Your task to perform on an android device: Open calendar and show me the first week of next month Image 0: 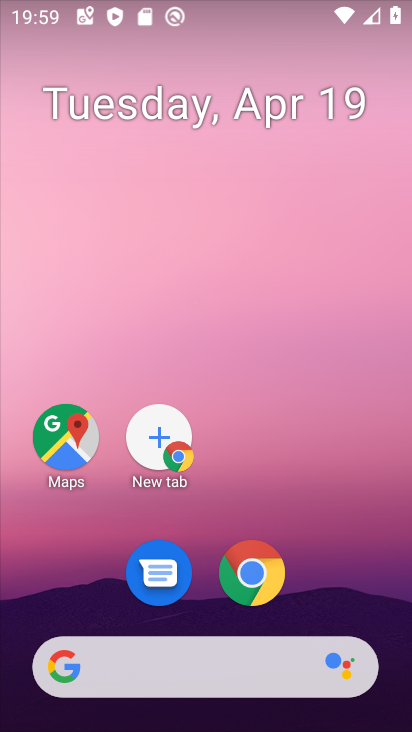
Step 0: click (339, 109)
Your task to perform on an android device: Open calendar and show me the first week of next month Image 1: 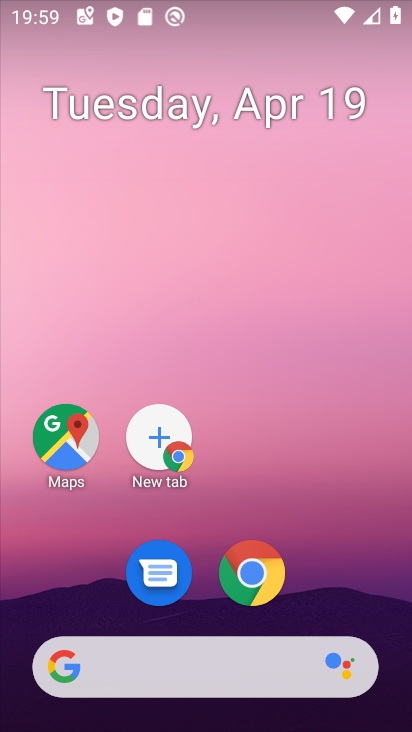
Step 1: drag from (354, 149) to (326, 40)
Your task to perform on an android device: Open calendar and show me the first week of next month Image 2: 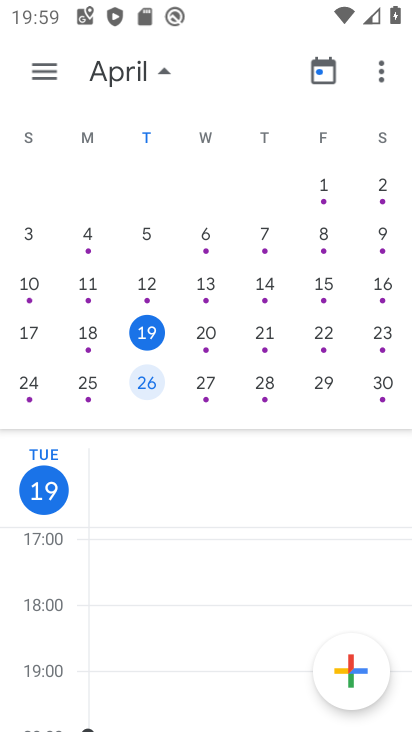
Step 2: press home button
Your task to perform on an android device: Open calendar and show me the first week of next month Image 3: 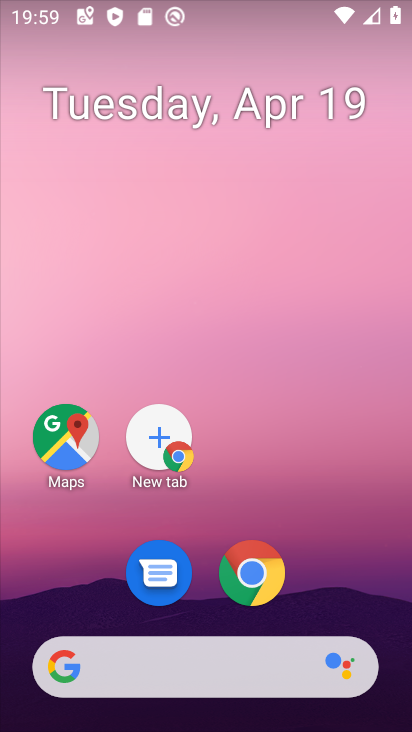
Step 3: drag from (341, 341) to (334, 256)
Your task to perform on an android device: Open calendar and show me the first week of next month Image 4: 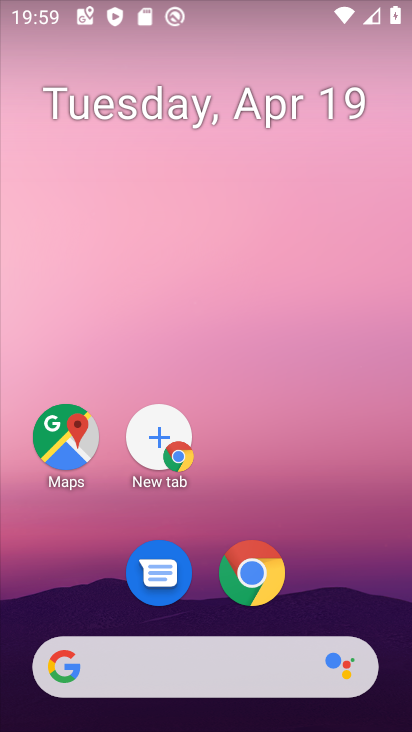
Step 4: drag from (345, 328) to (332, 169)
Your task to perform on an android device: Open calendar and show me the first week of next month Image 5: 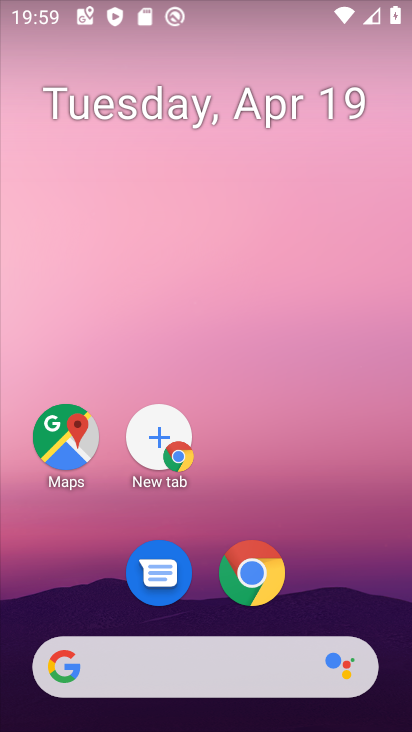
Step 5: drag from (388, 401) to (372, 120)
Your task to perform on an android device: Open calendar and show me the first week of next month Image 6: 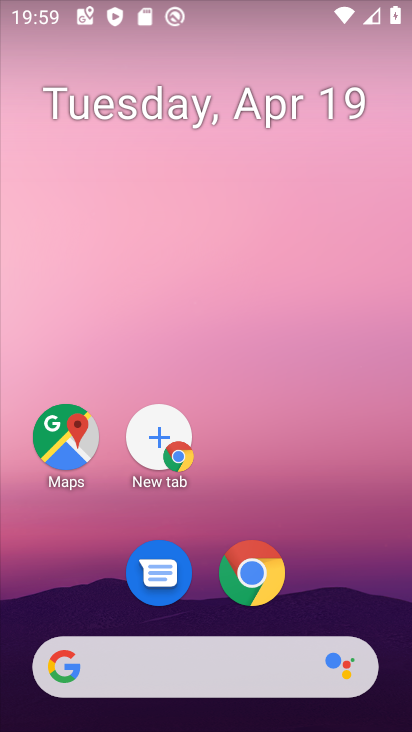
Step 6: drag from (406, 571) to (349, 194)
Your task to perform on an android device: Open calendar and show me the first week of next month Image 7: 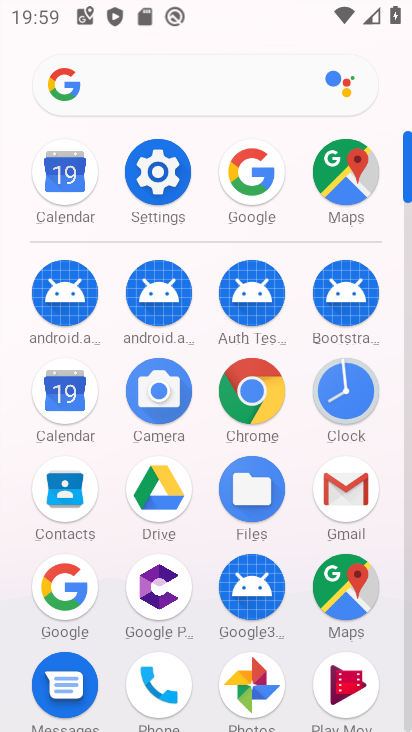
Step 7: click (64, 177)
Your task to perform on an android device: Open calendar and show me the first week of next month Image 8: 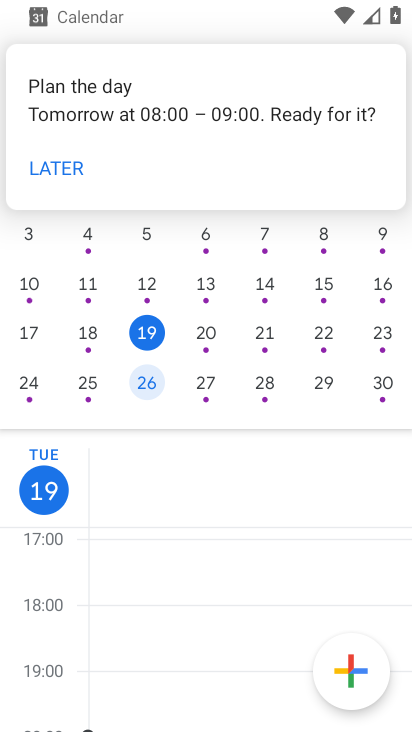
Step 8: drag from (395, 268) to (17, 240)
Your task to perform on an android device: Open calendar and show me the first week of next month Image 9: 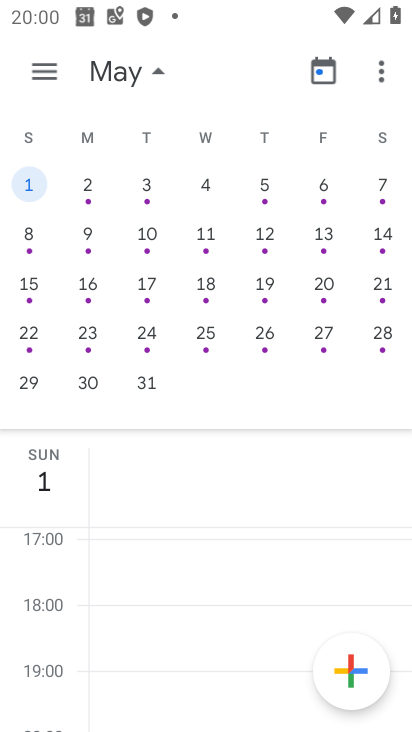
Step 9: click (205, 186)
Your task to perform on an android device: Open calendar and show me the first week of next month Image 10: 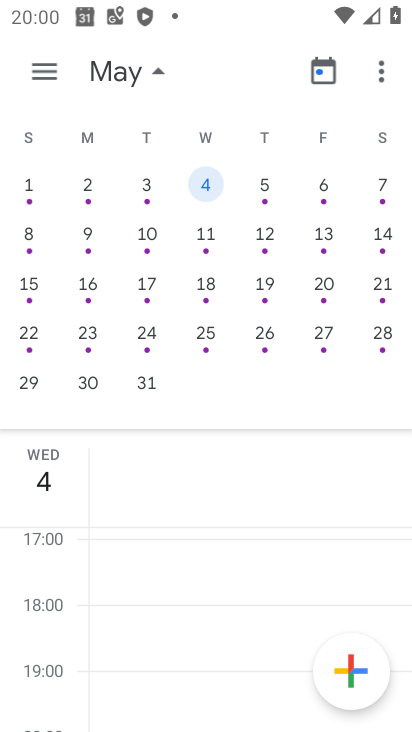
Step 10: click (53, 69)
Your task to perform on an android device: Open calendar and show me the first week of next month Image 11: 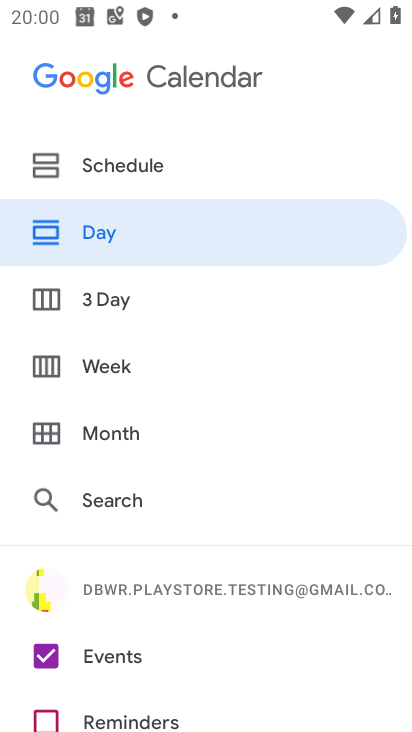
Step 11: click (83, 357)
Your task to perform on an android device: Open calendar and show me the first week of next month Image 12: 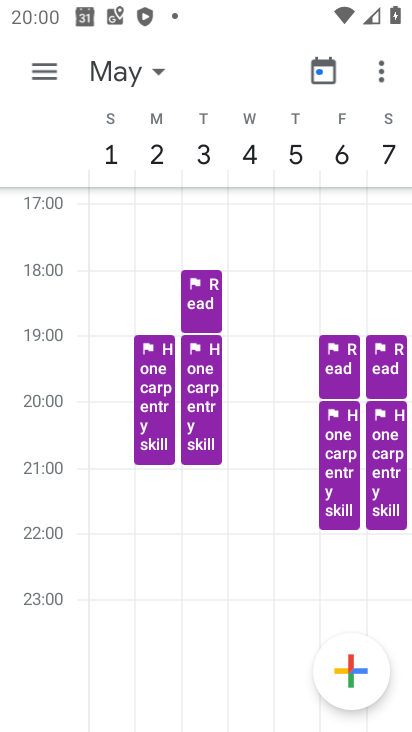
Step 12: task complete